Your task to perform on an android device: turn on bluetooth scan Image 0: 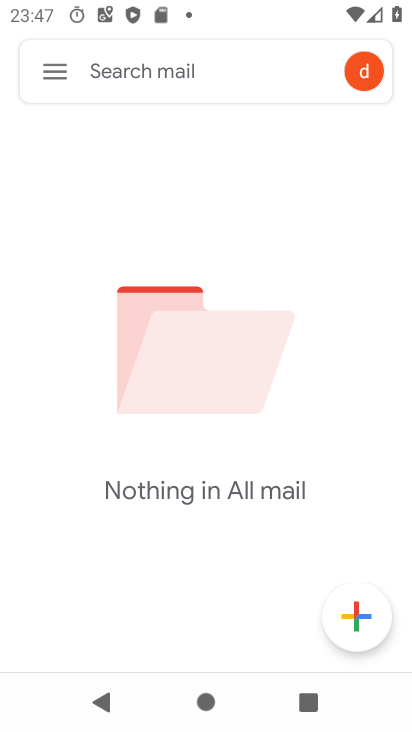
Step 0: press home button
Your task to perform on an android device: turn on bluetooth scan Image 1: 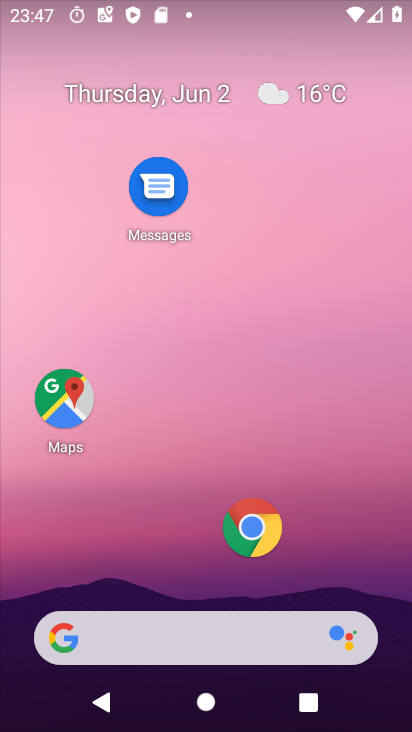
Step 1: drag from (205, 579) to (255, 67)
Your task to perform on an android device: turn on bluetooth scan Image 2: 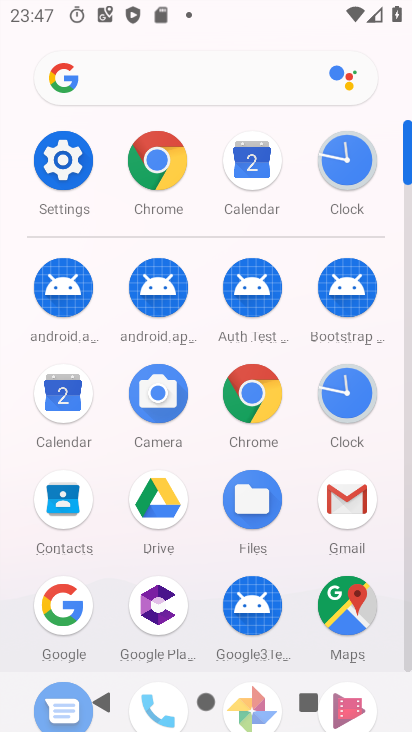
Step 2: click (61, 153)
Your task to perform on an android device: turn on bluetooth scan Image 3: 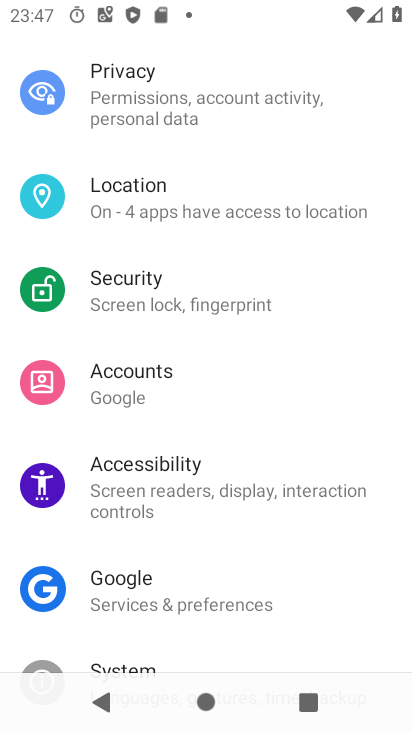
Step 3: click (158, 198)
Your task to perform on an android device: turn on bluetooth scan Image 4: 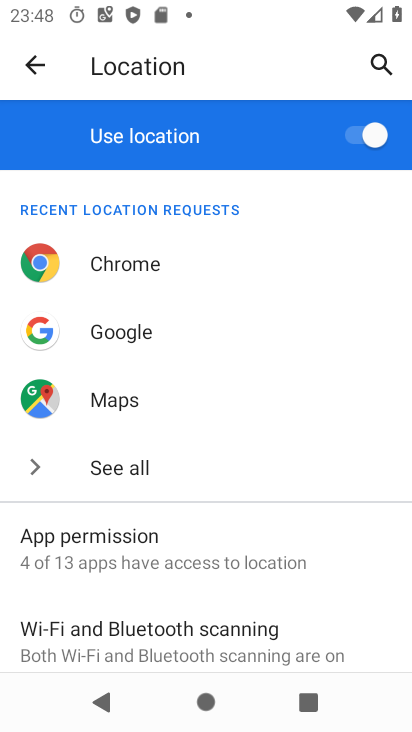
Step 4: click (297, 637)
Your task to perform on an android device: turn on bluetooth scan Image 5: 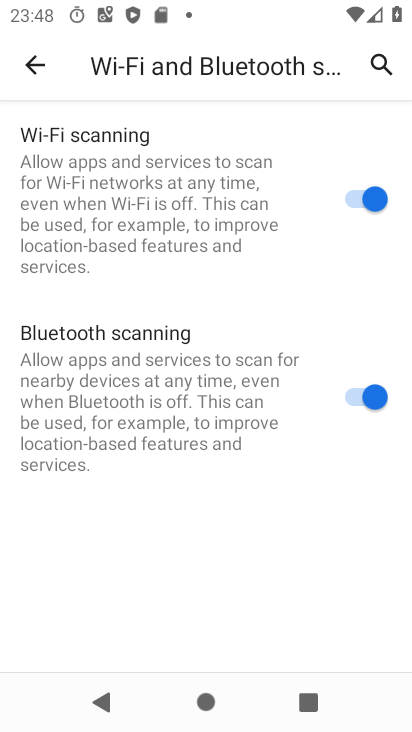
Step 5: task complete